Your task to perform on an android device: Search for amazon basics triple a on costco.com, select the first entry, add it to the cart, then select checkout. Image 0: 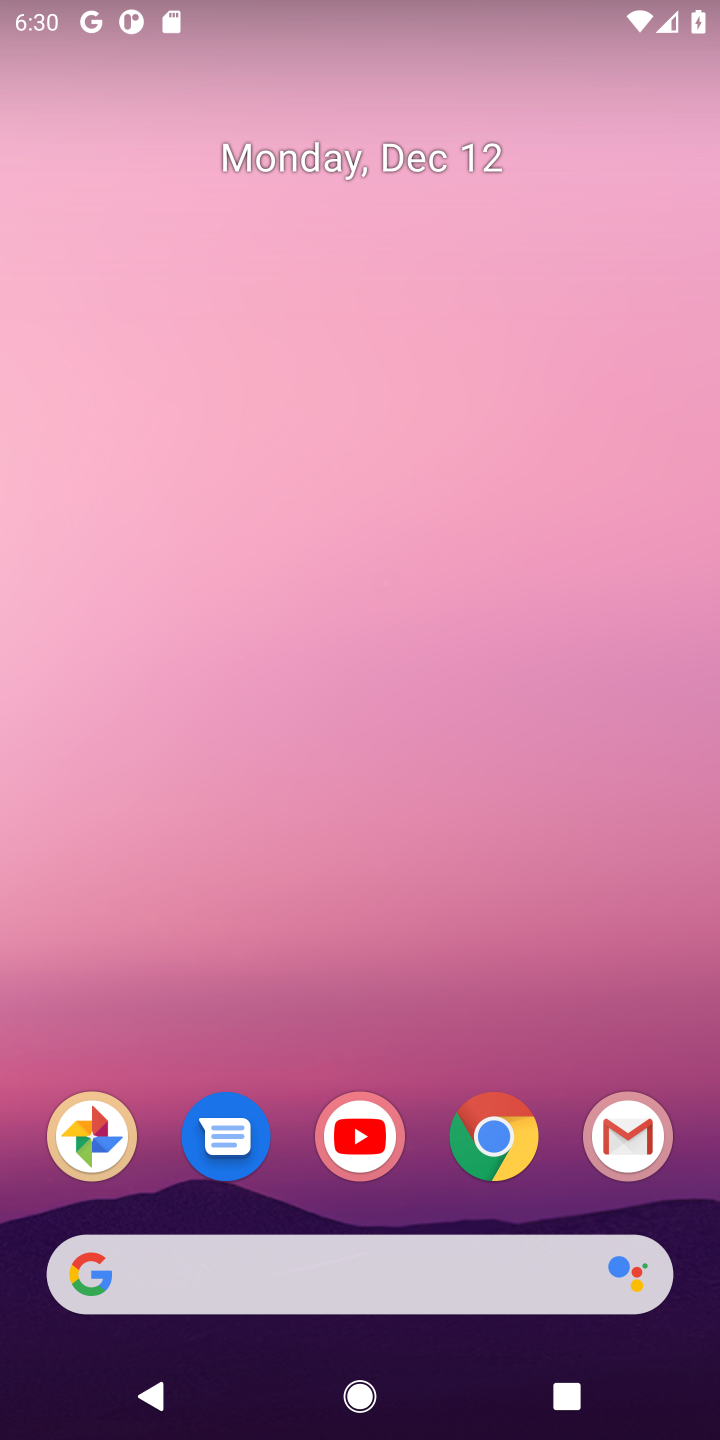
Step 0: click (494, 1144)
Your task to perform on an android device: Search for amazon basics triple a on costco.com, select the first entry, add it to the cart, then select checkout. Image 1: 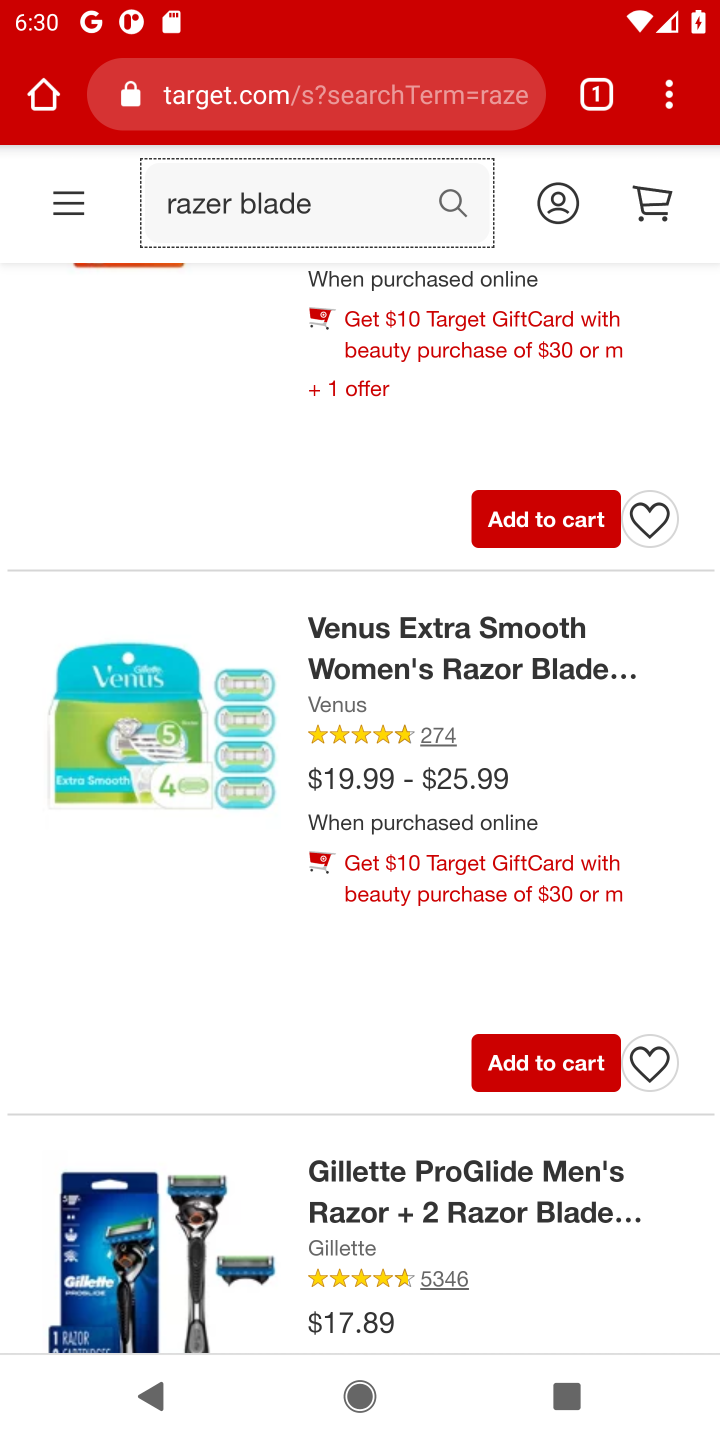
Step 1: click (211, 117)
Your task to perform on an android device: Search for amazon basics triple a on costco.com, select the first entry, add it to the cart, then select checkout. Image 2: 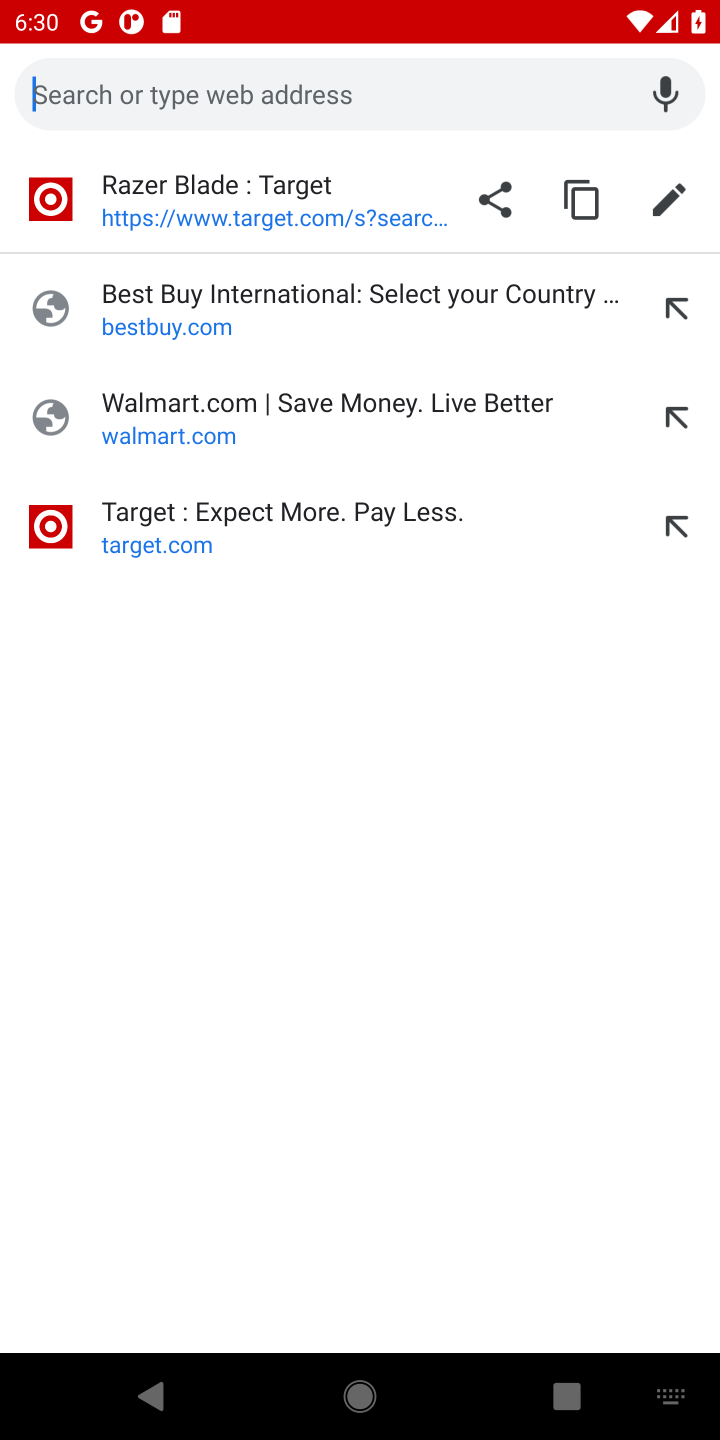
Step 2: type "costco.com"
Your task to perform on an android device: Search for amazon basics triple a on costco.com, select the first entry, add it to the cart, then select checkout. Image 3: 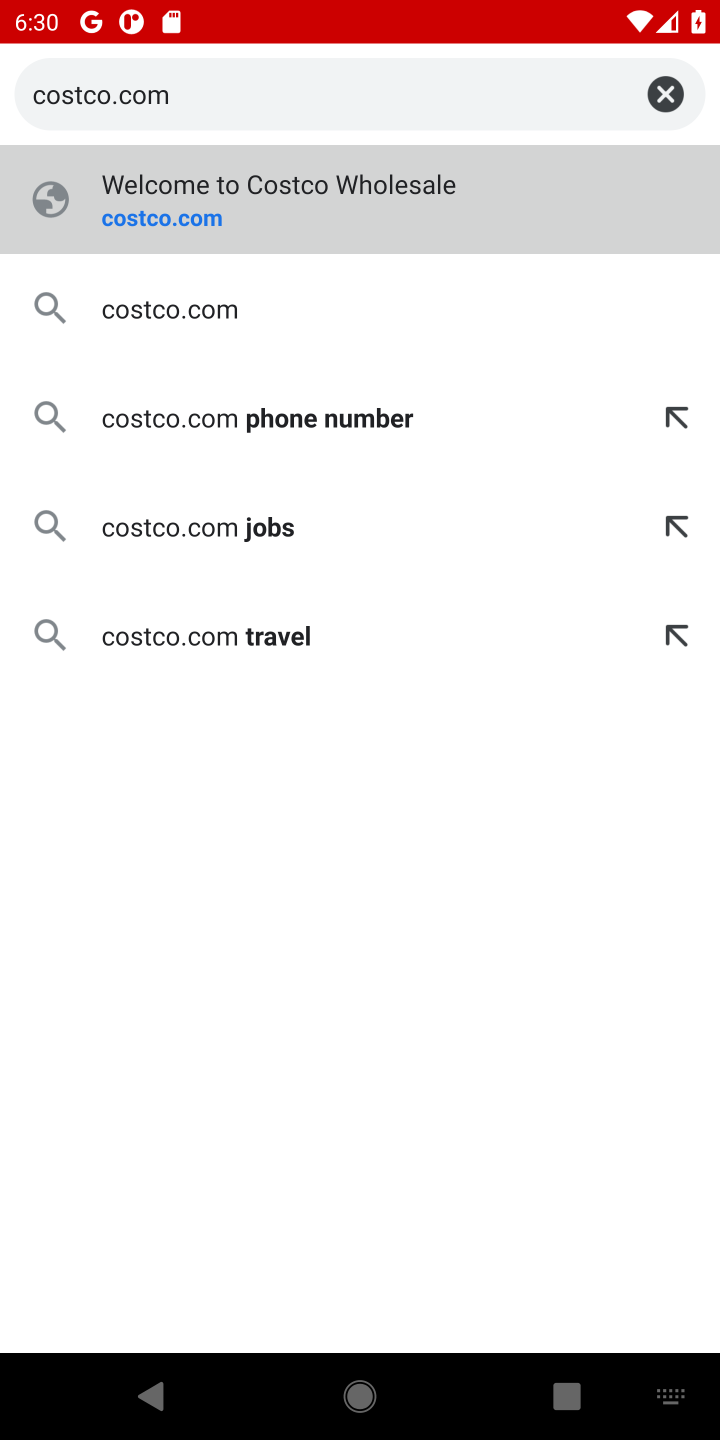
Step 3: click (141, 219)
Your task to perform on an android device: Search for amazon basics triple a on costco.com, select the first entry, add it to the cart, then select checkout. Image 4: 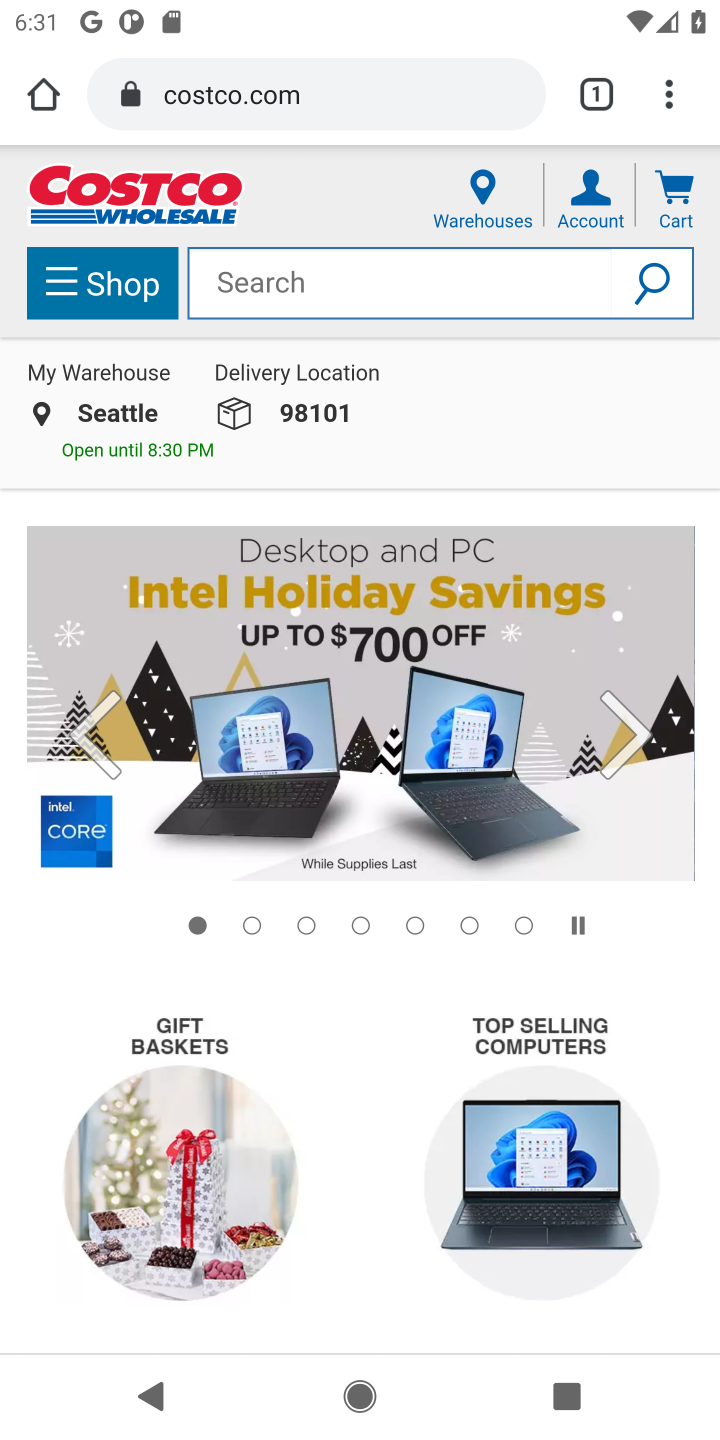
Step 4: click (278, 277)
Your task to perform on an android device: Search for amazon basics triple a on costco.com, select the first entry, add it to the cart, then select checkout. Image 5: 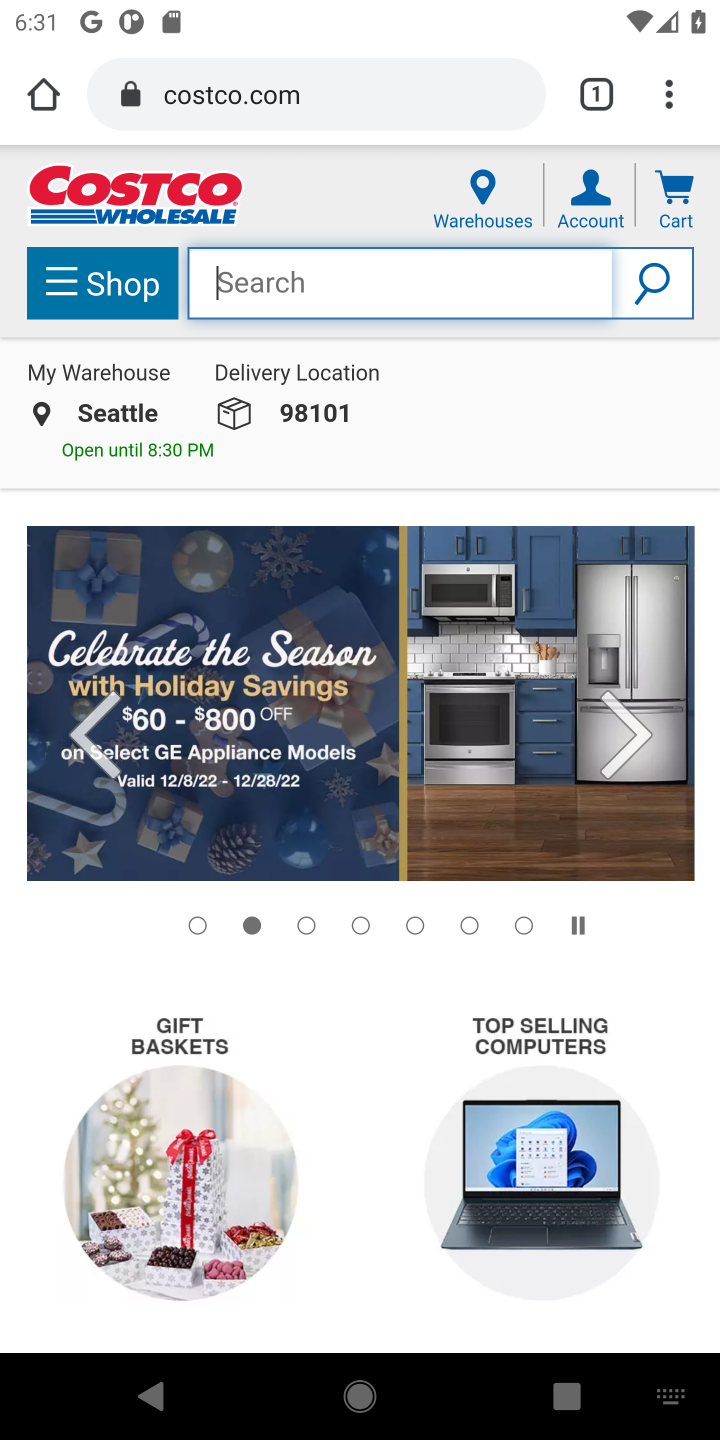
Step 5: type "amazon basics triple a"
Your task to perform on an android device: Search for amazon basics triple a on costco.com, select the first entry, add it to the cart, then select checkout. Image 6: 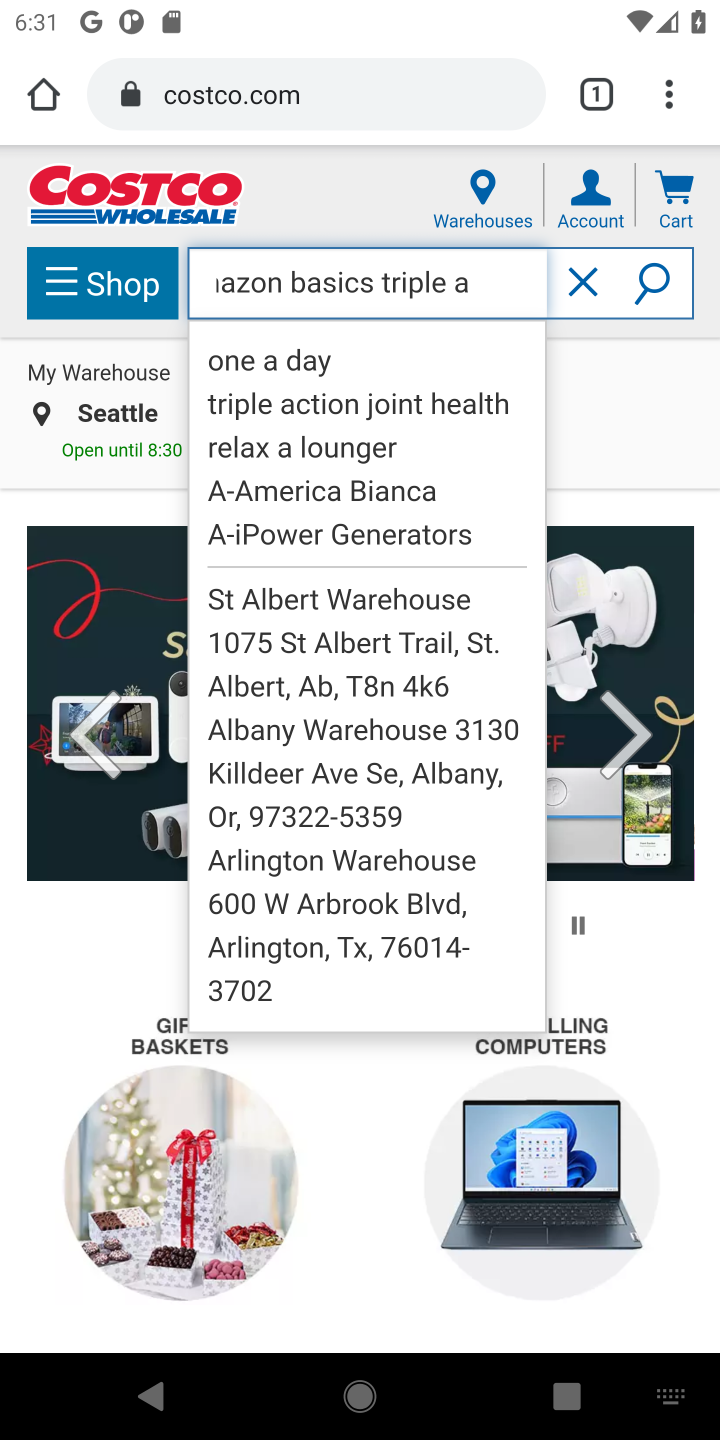
Step 6: click (649, 283)
Your task to perform on an android device: Search for amazon basics triple a on costco.com, select the first entry, add it to the cart, then select checkout. Image 7: 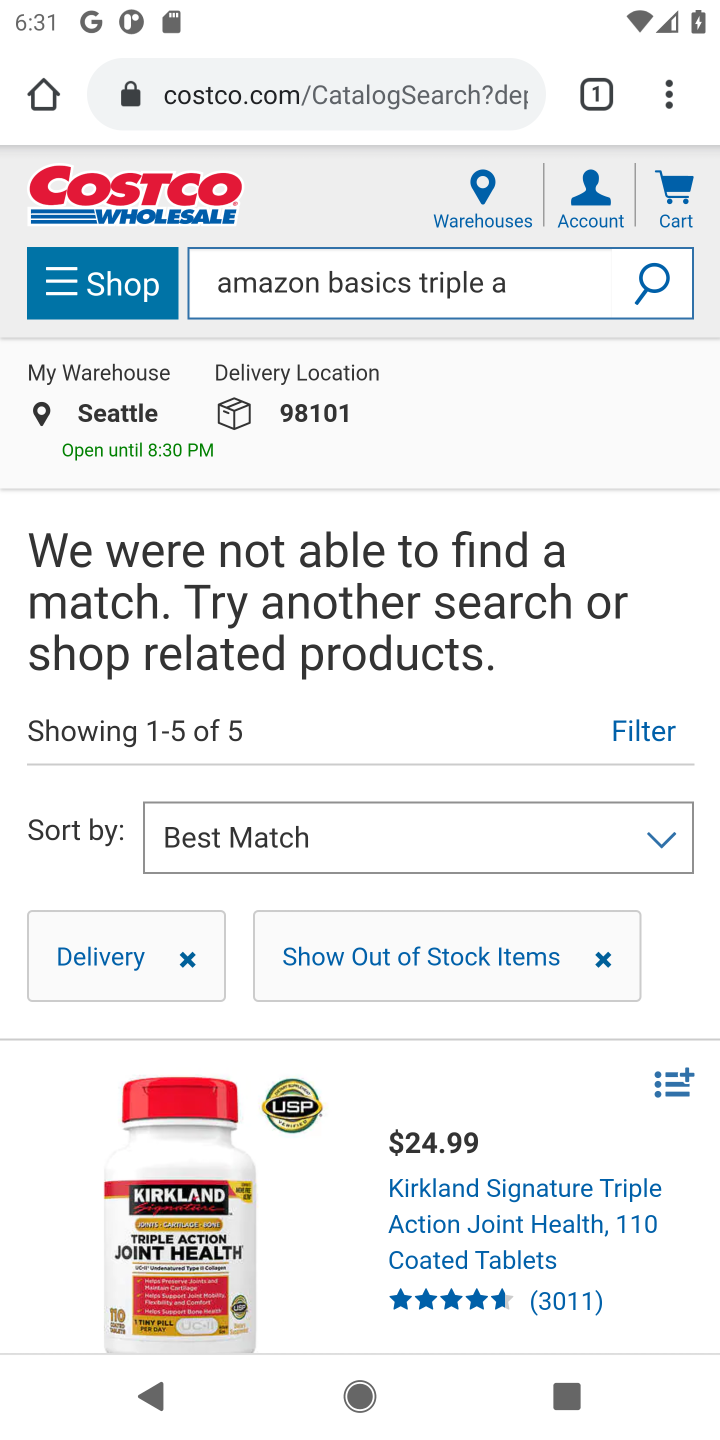
Step 7: task complete